Your task to perform on an android device: allow notifications from all sites in the chrome app Image 0: 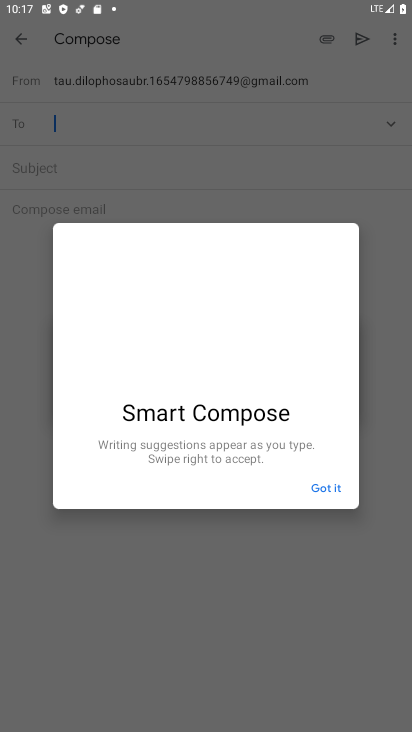
Step 0: press home button
Your task to perform on an android device: allow notifications from all sites in the chrome app Image 1: 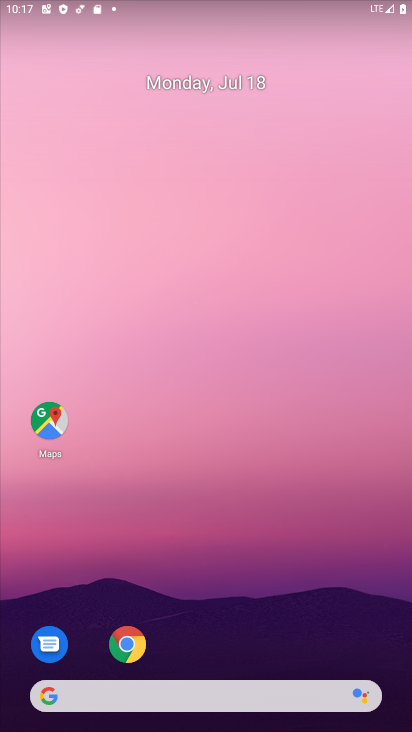
Step 1: drag from (252, 626) to (301, 214)
Your task to perform on an android device: allow notifications from all sites in the chrome app Image 2: 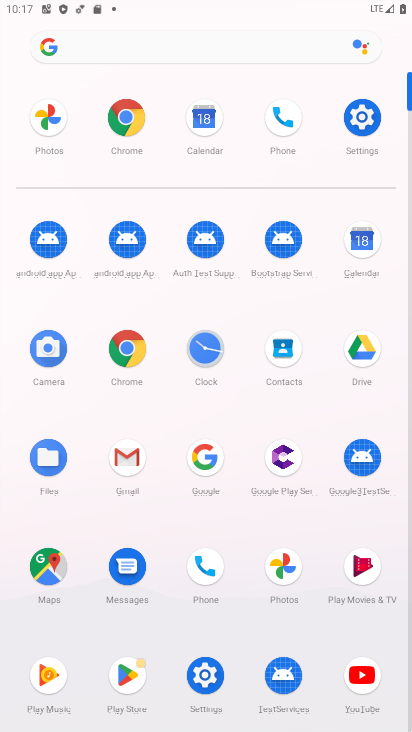
Step 2: click (128, 350)
Your task to perform on an android device: allow notifications from all sites in the chrome app Image 3: 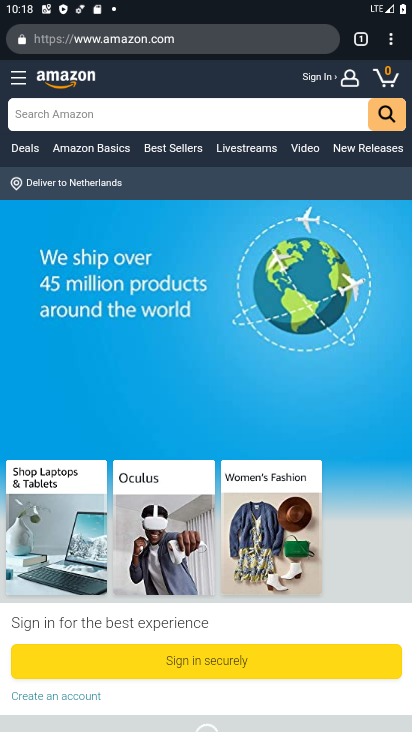
Step 3: click (389, 44)
Your task to perform on an android device: allow notifications from all sites in the chrome app Image 4: 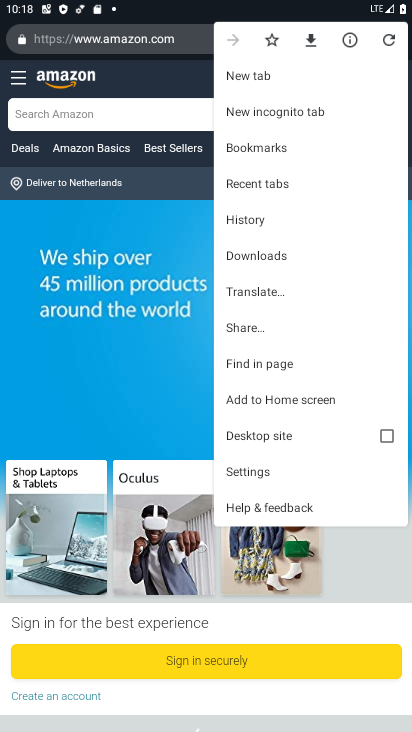
Step 4: click (269, 469)
Your task to perform on an android device: allow notifications from all sites in the chrome app Image 5: 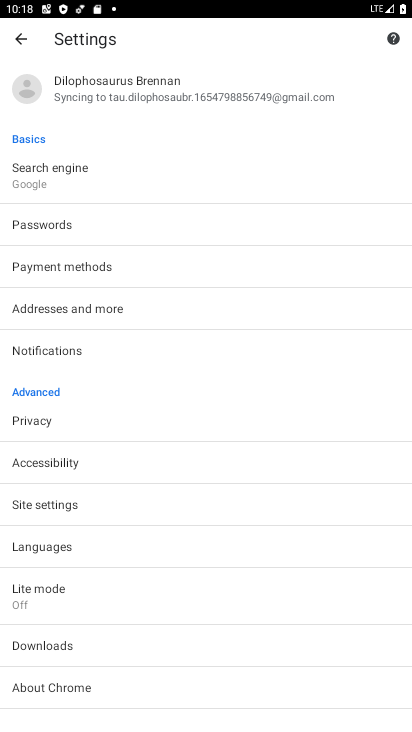
Step 5: click (139, 506)
Your task to perform on an android device: allow notifications from all sites in the chrome app Image 6: 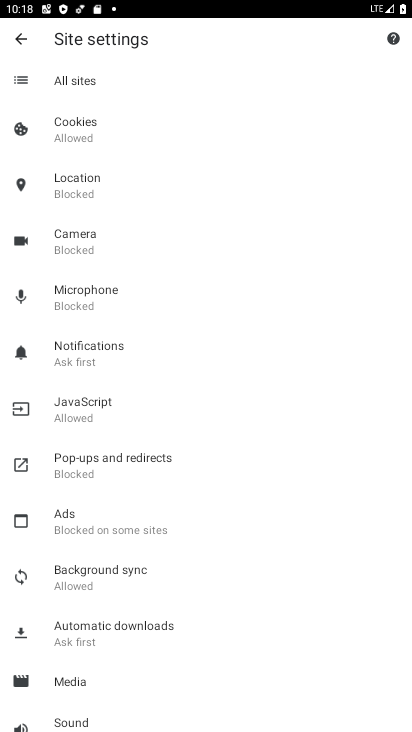
Step 6: click (144, 349)
Your task to perform on an android device: allow notifications from all sites in the chrome app Image 7: 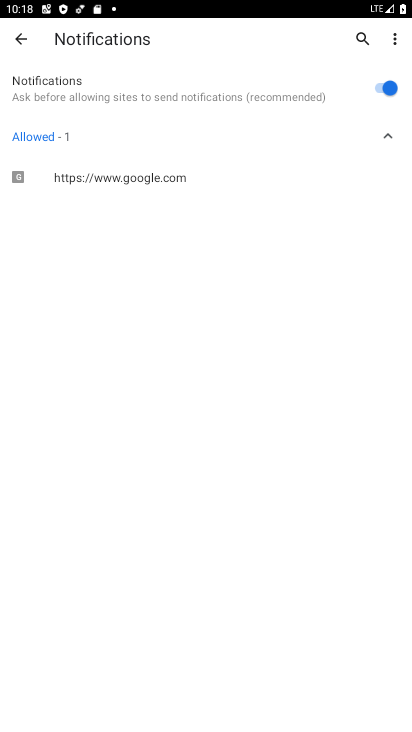
Step 7: task complete